Your task to perform on an android device: uninstall "Pinterest" Image 0: 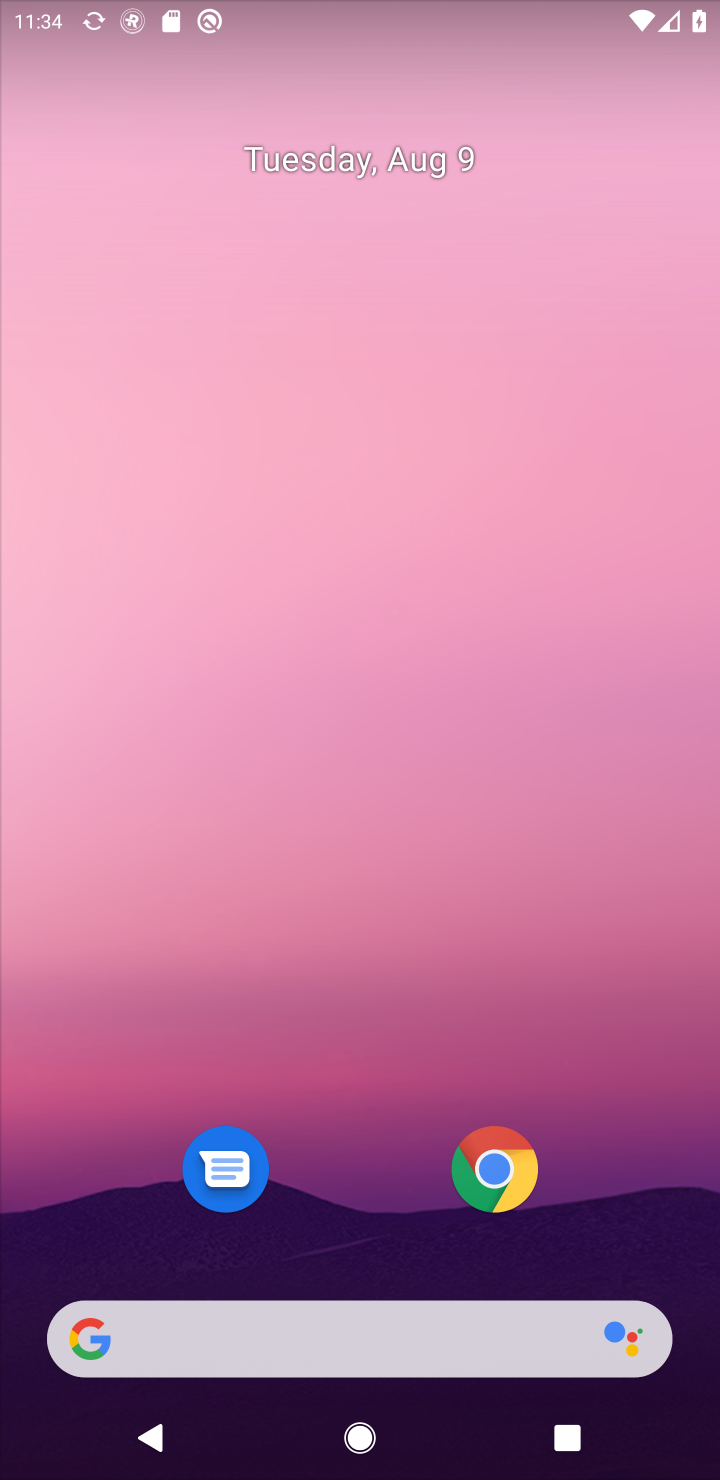
Step 0: press home button
Your task to perform on an android device: uninstall "Pinterest" Image 1: 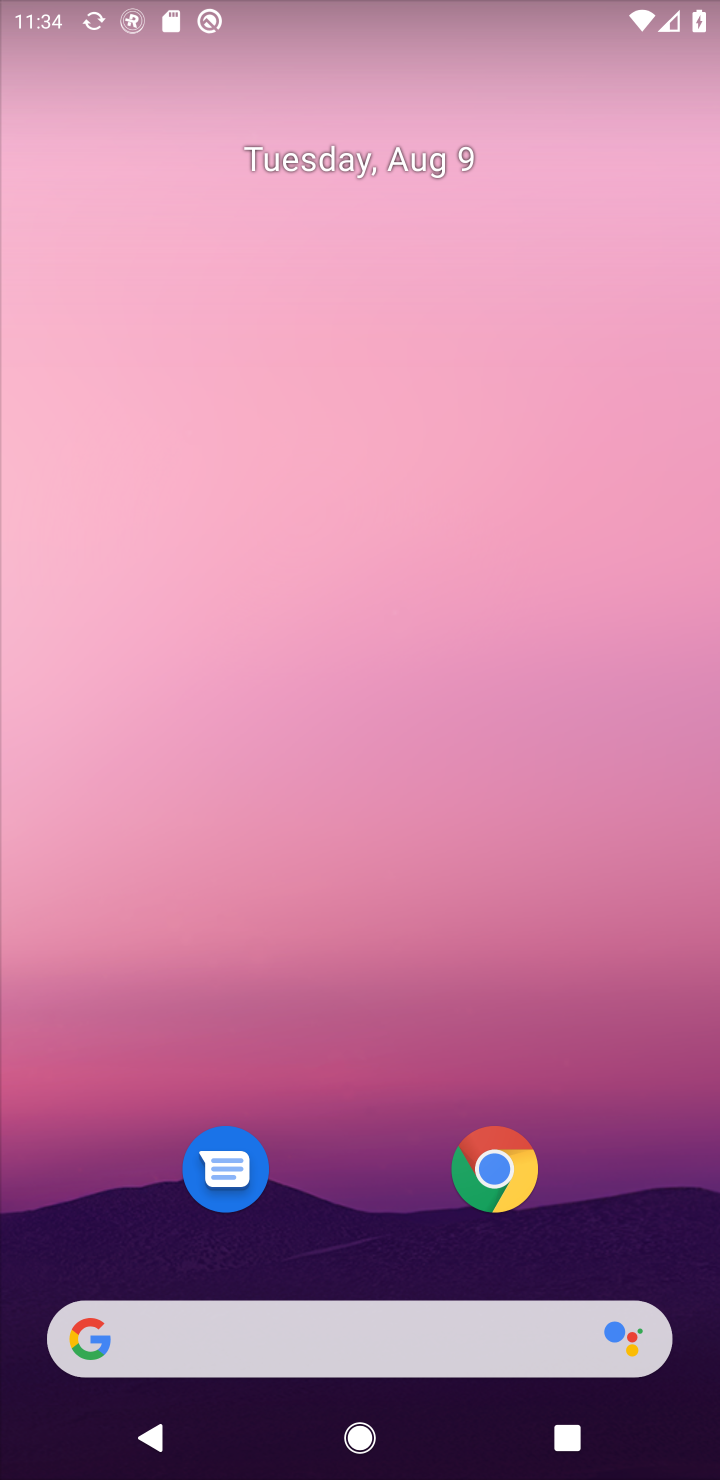
Step 1: drag from (601, 1197) to (634, 96)
Your task to perform on an android device: uninstall "Pinterest" Image 2: 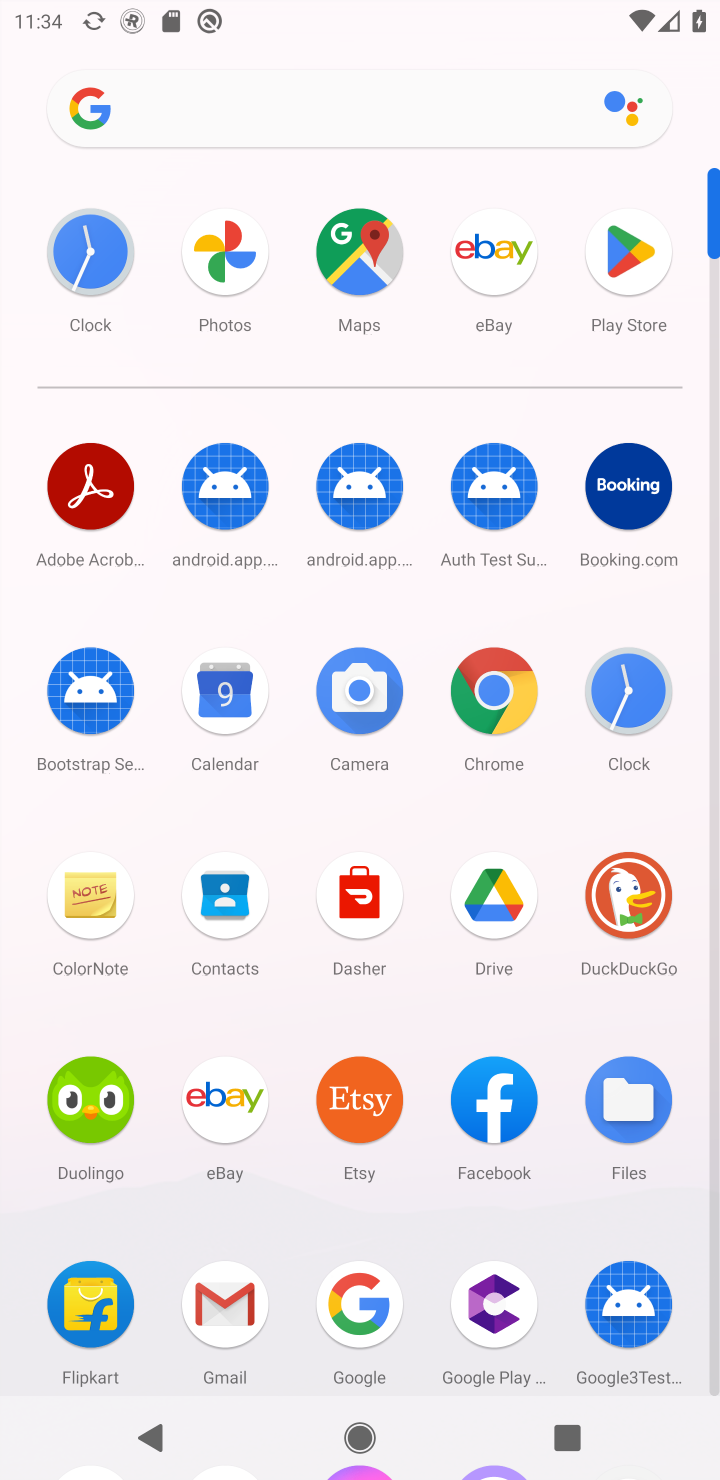
Step 2: click (618, 243)
Your task to perform on an android device: uninstall "Pinterest" Image 3: 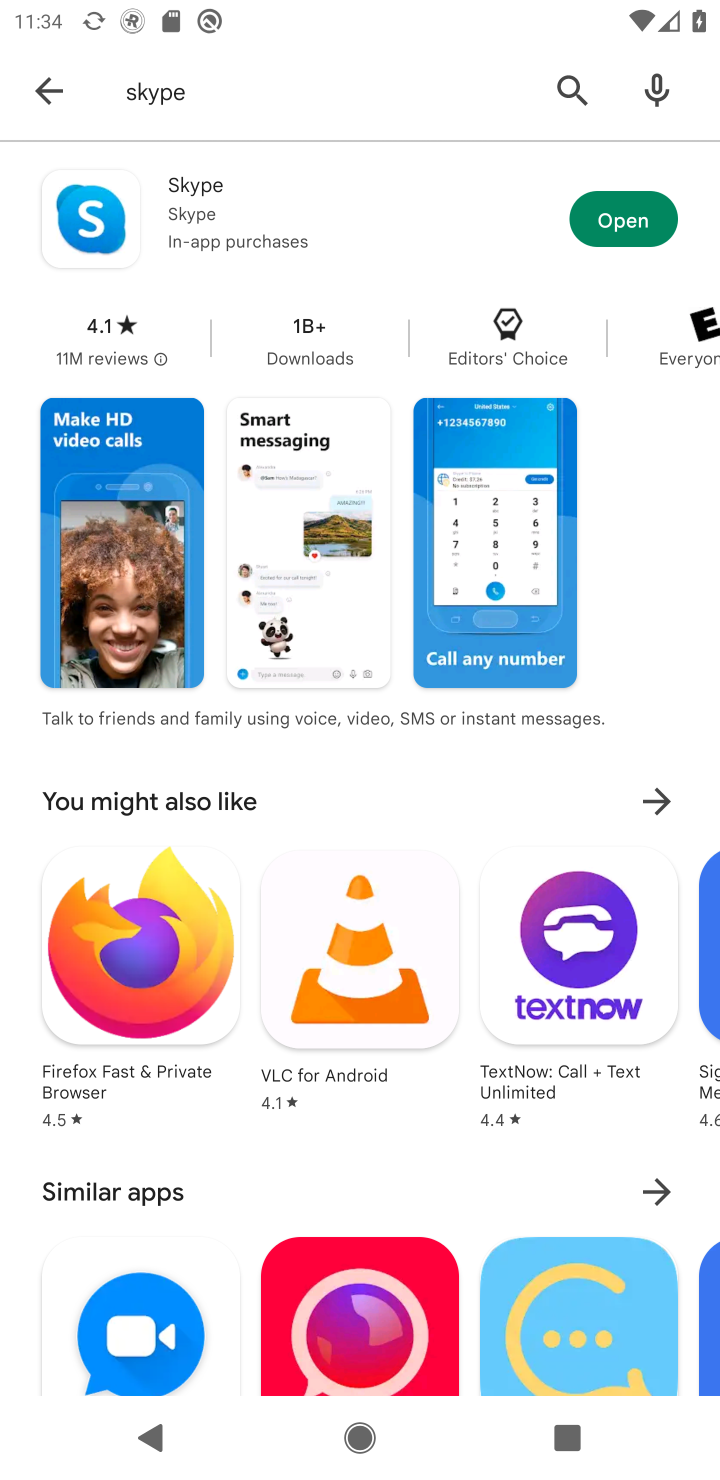
Step 3: click (574, 88)
Your task to perform on an android device: uninstall "Pinterest" Image 4: 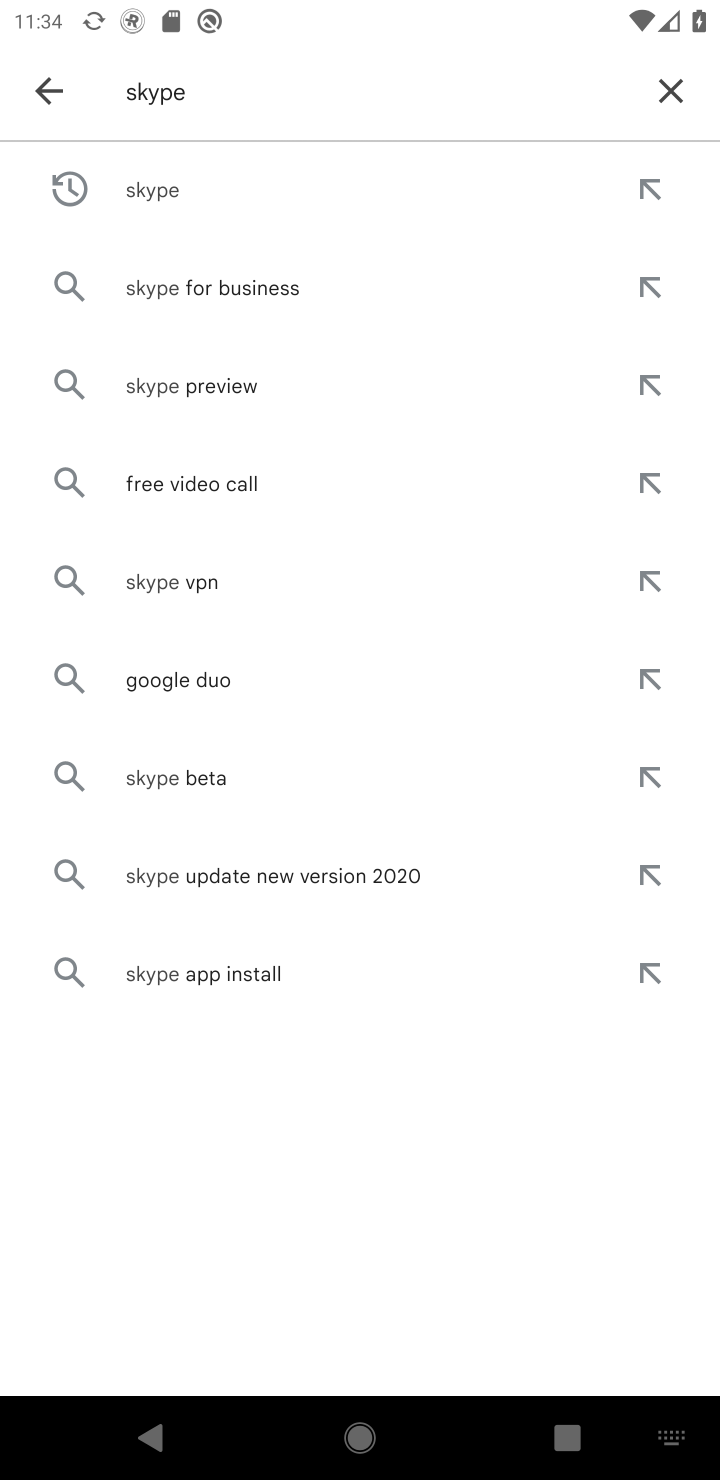
Step 4: click (668, 88)
Your task to perform on an android device: uninstall "Pinterest" Image 5: 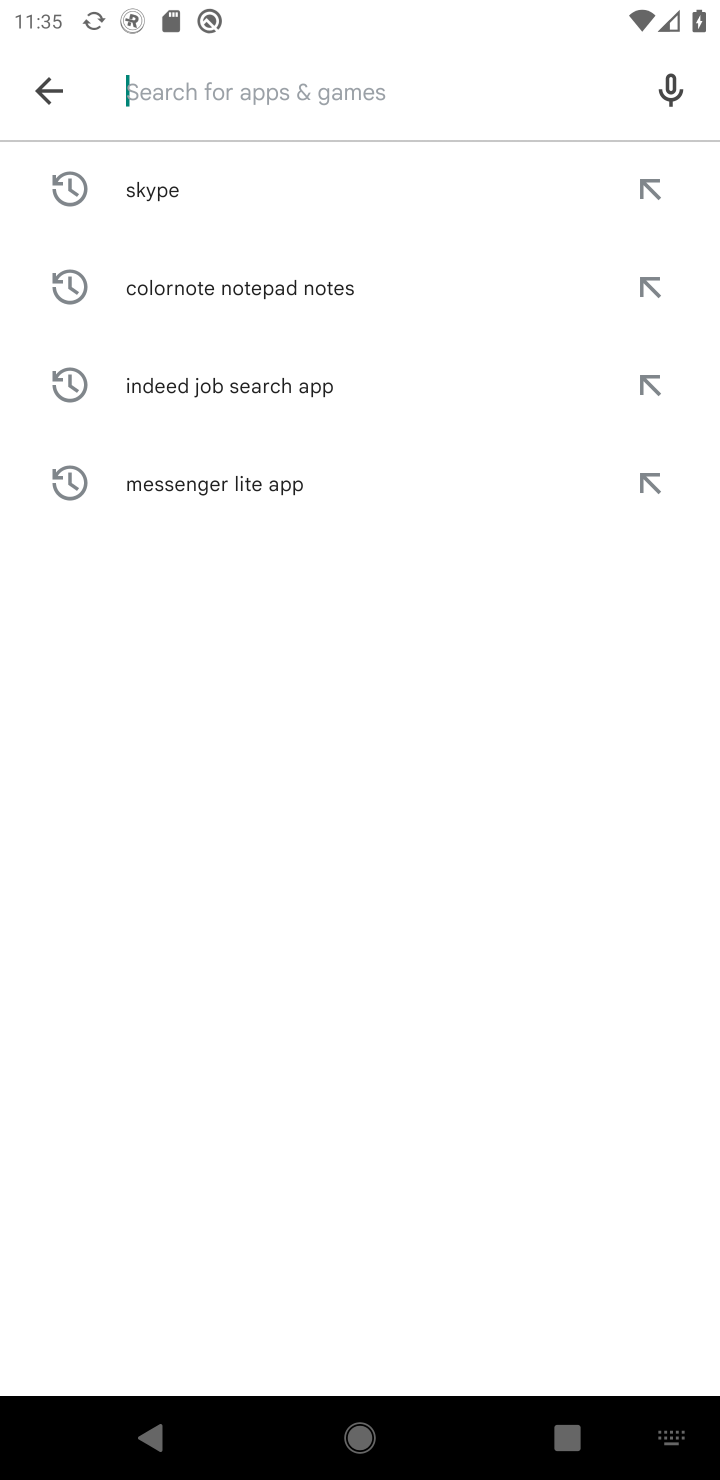
Step 5: type "pinterest"
Your task to perform on an android device: uninstall "Pinterest" Image 6: 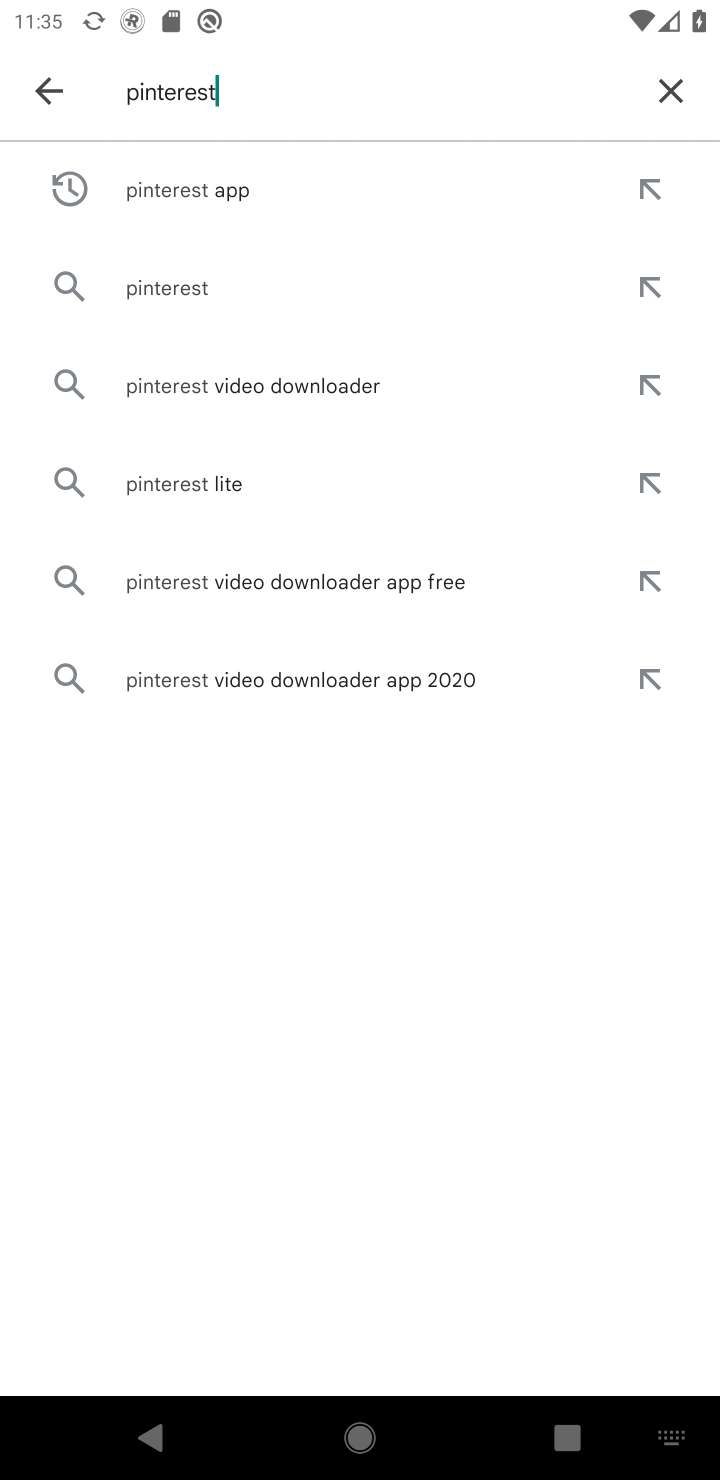
Step 6: click (184, 274)
Your task to perform on an android device: uninstall "Pinterest" Image 7: 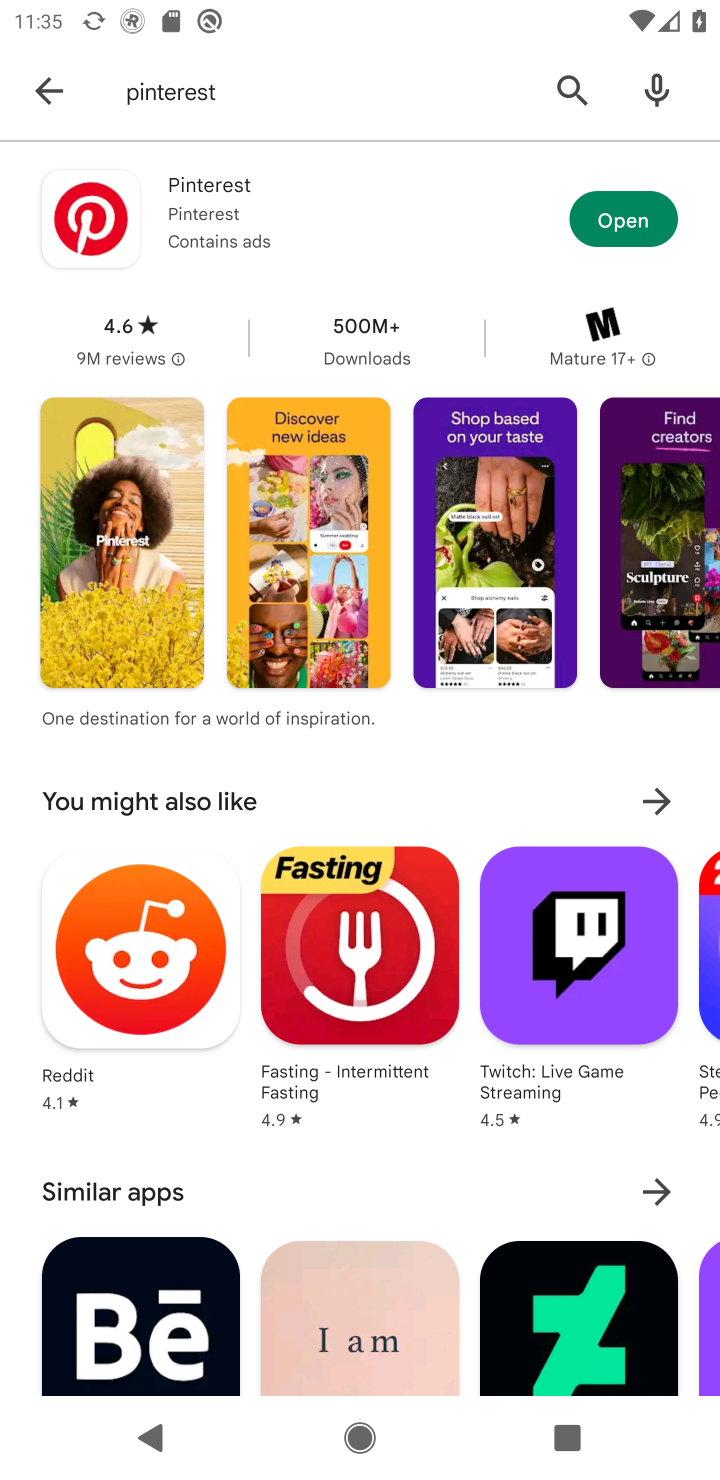
Step 7: task complete